Your task to perform on an android device: Open Wikipedia Image 0: 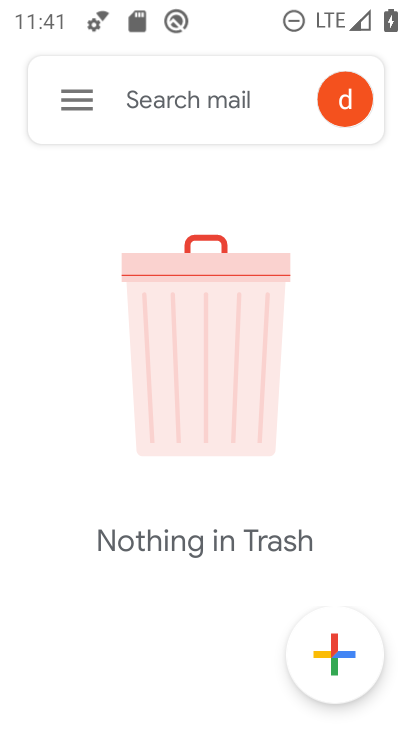
Step 0: press home button
Your task to perform on an android device: Open Wikipedia Image 1: 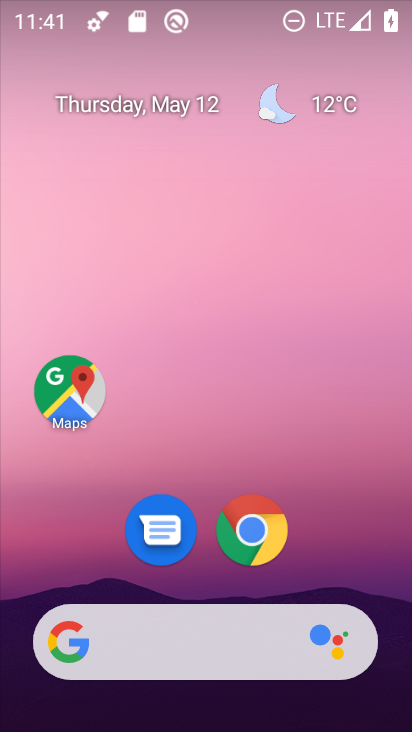
Step 1: drag from (211, 651) to (294, 140)
Your task to perform on an android device: Open Wikipedia Image 2: 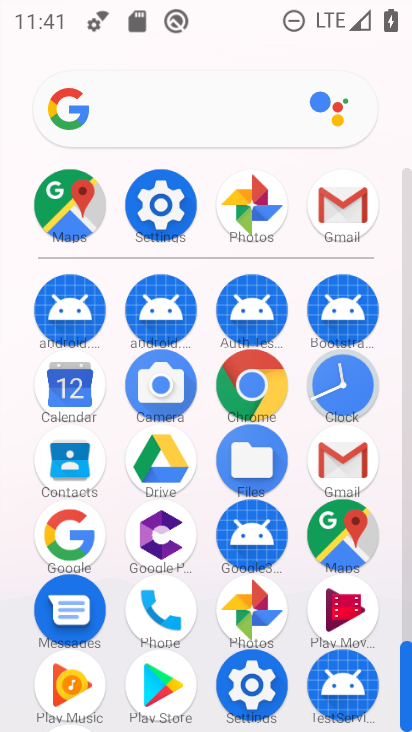
Step 2: click (248, 389)
Your task to perform on an android device: Open Wikipedia Image 3: 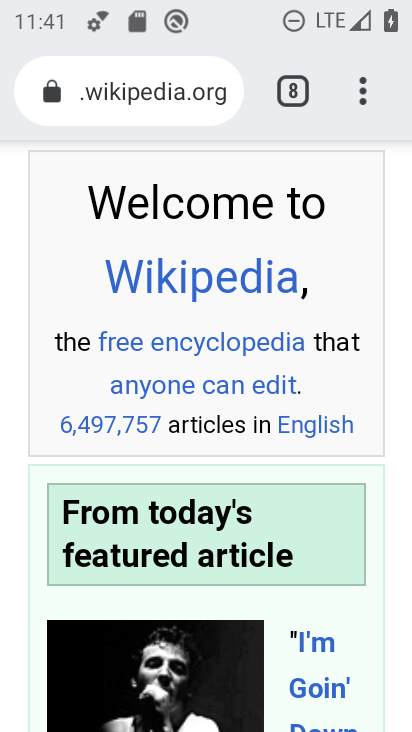
Step 3: task complete